Your task to perform on an android device: Go to display settings Image 0: 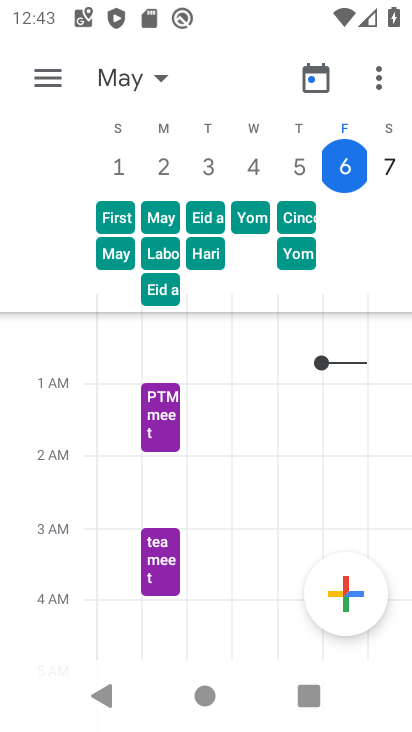
Step 0: press home button
Your task to perform on an android device: Go to display settings Image 1: 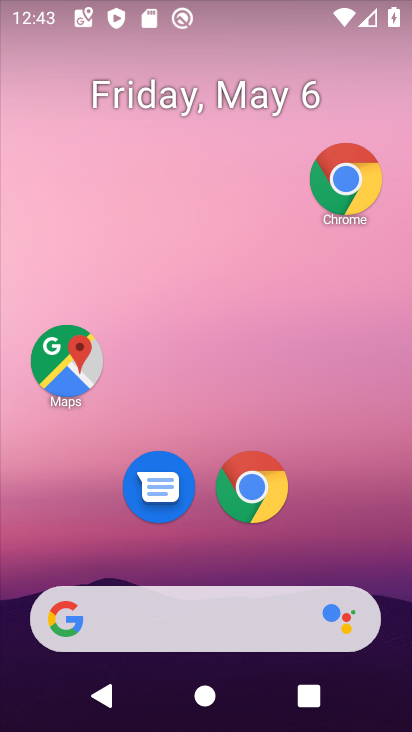
Step 1: drag from (320, 534) to (310, 99)
Your task to perform on an android device: Go to display settings Image 2: 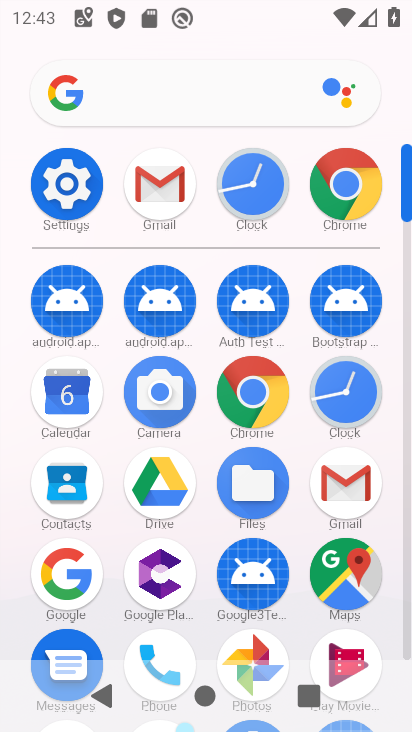
Step 2: click (66, 216)
Your task to perform on an android device: Go to display settings Image 3: 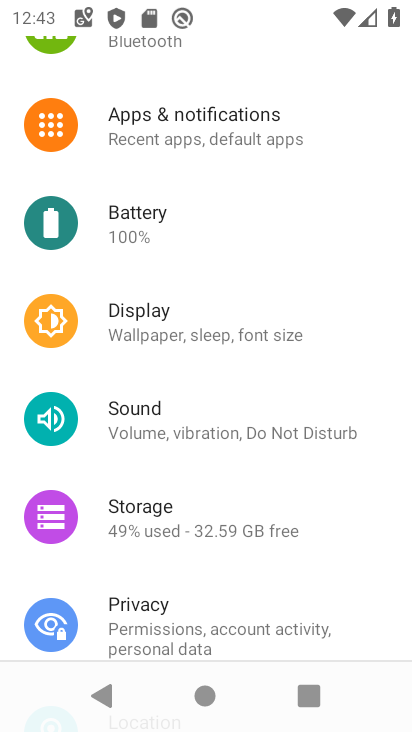
Step 3: click (196, 312)
Your task to perform on an android device: Go to display settings Image 4: 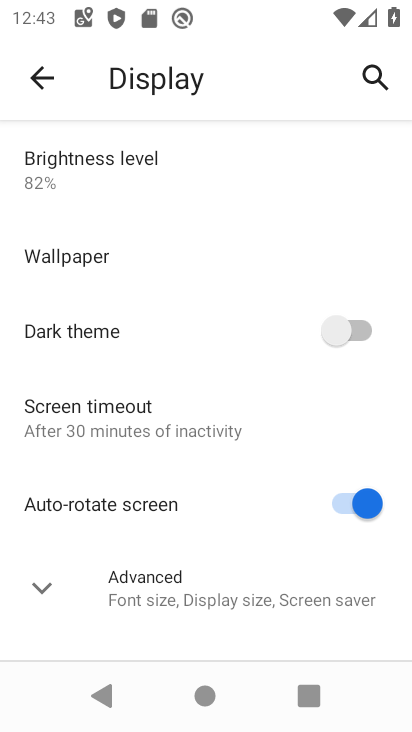
Step 4: task complete